Your task to perform on an android device: turn on improve location accuracy Image 0: 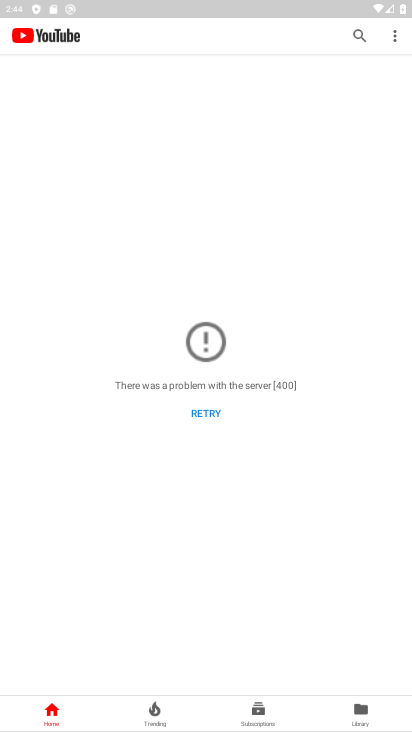
Step 0: press home button
Your task to perform on an android device: turn on improve location accuracy Image 1: 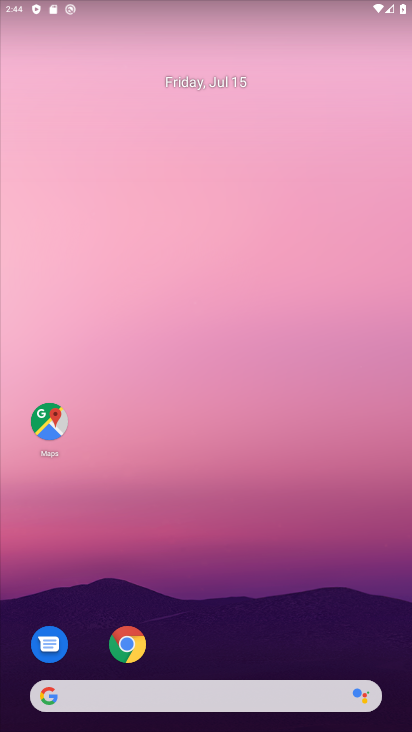
Step 1: drag from (205, 679) to (253, 154)
Your task to perform on an android device: turn on improve location accuracy Image 2: 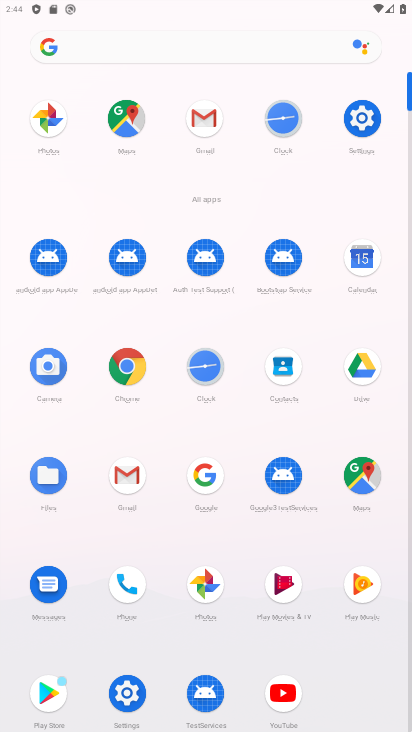
Step 2: click (132, 704)
Your task to perform on an android device: turn on improve location accuracy Image 3: 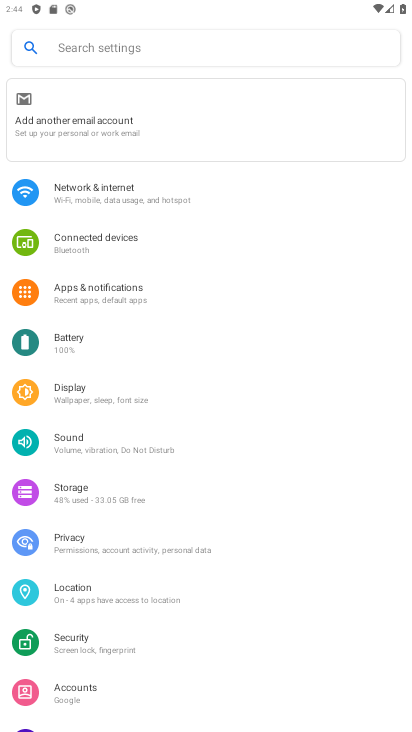
Step 3: click (121, 593)
Your task to perform on an android device: turn on improve location accuracy Image 4: 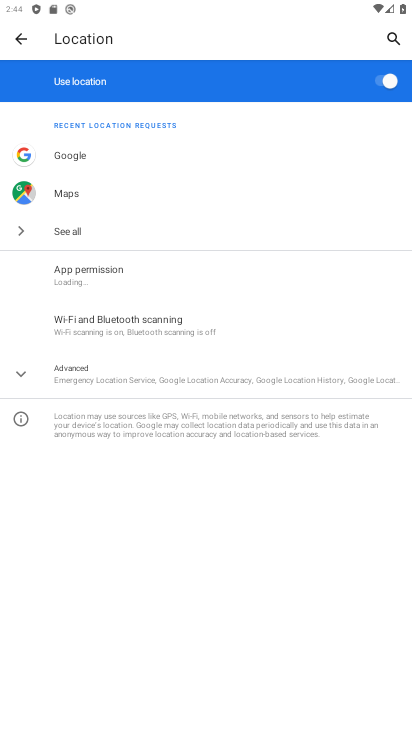
Step 4: click (129, 365)
Your task to perform on an android device: turn on improve location accuracy Image 5: 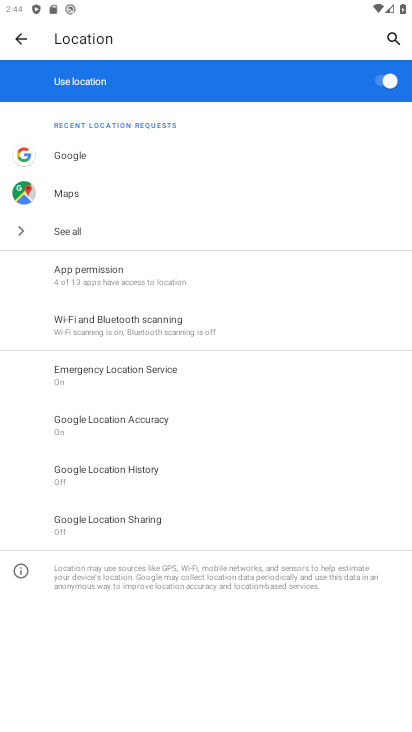
Step 5: click (177, 436)
Your task to perform on an android device: turn on improve location accuracy Image 6: 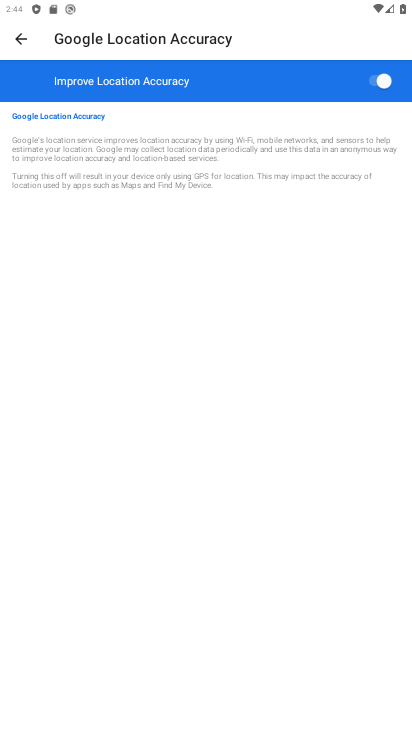
Step 6: task complete